Your task to perform on an android device: Go to privacy settings Image 0: 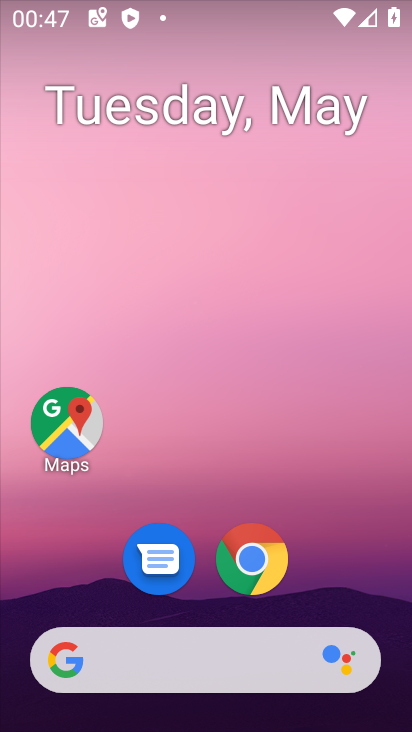
Step 0: drag from (326, 515) to (326, 236)
Your task to perform on an android device: Go to privacy settings Image 1: 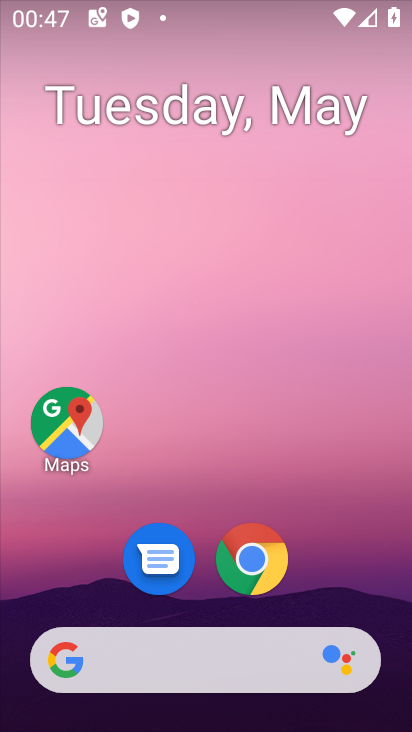
Step 1: drag from (357, 479) to (272, 174)
Your task to perform on an android device: Go to privacy settings Image 2: 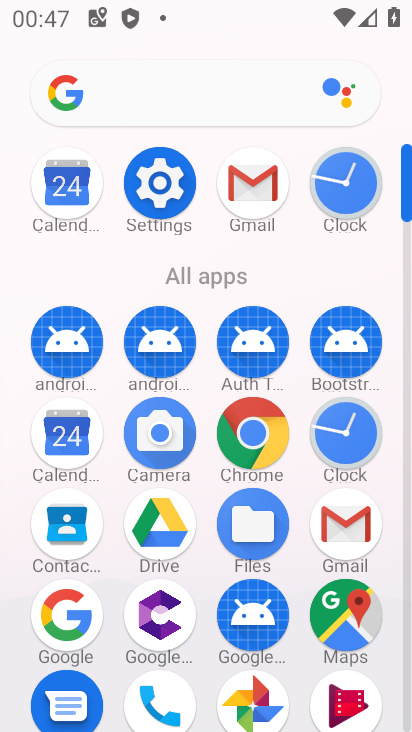
Step 2: click (127, 179)
Your task to perform on an android device: Go to privacy settings Image 3: 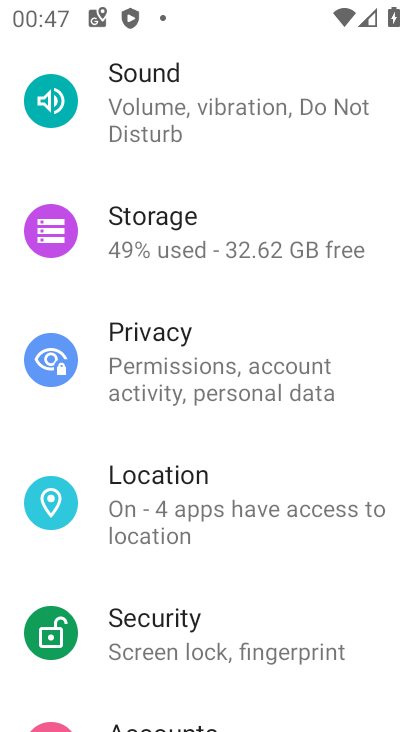
Step 3: drag from (174, 166) to (206, 458)
Your task to perform on an android device: Go to privacy settings Image 4: 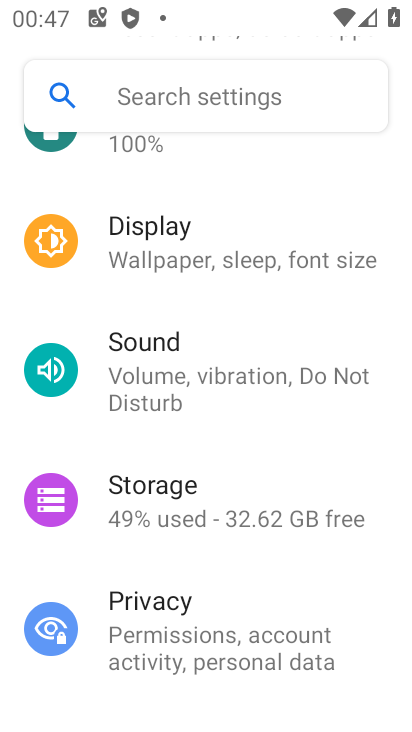
Step 4: drag from (218, 337) to (205, 562)
Your task to perform on an android device: Go to privacy settings Image 5: 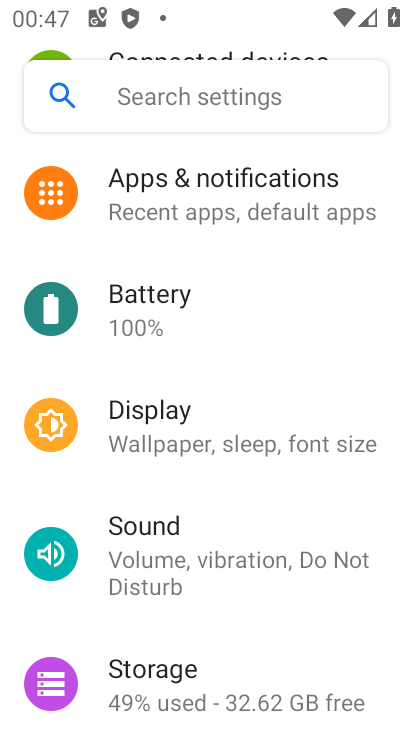
Step 5: drag from (223, 532) to (233, 317)
Your task to perform on an android device: Go to privacy settings Image 6: 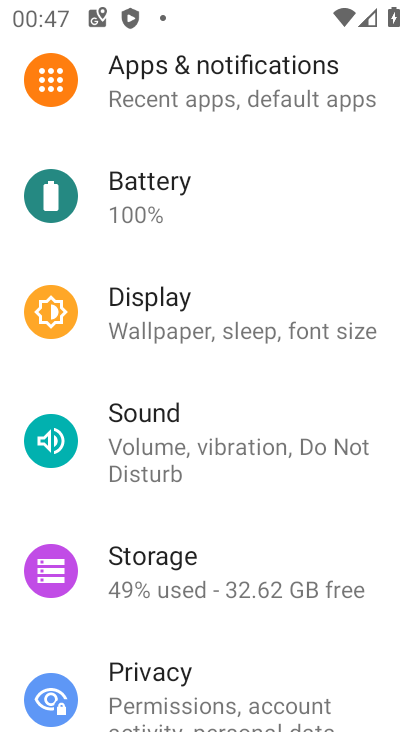
Step 6: drag from (202, 361) to (198, 158)
Your task to perform on an android device: Go to privacy settings Image 7: 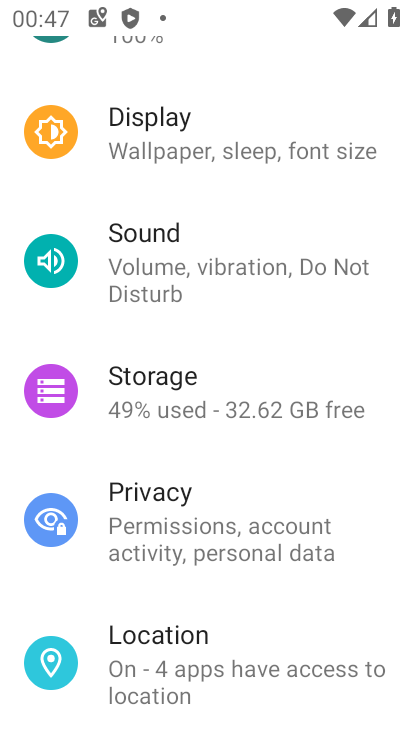
Step 7: drag from (141, 586) to (142, 522)
Your task to perform on an android device: Go to privacy settings Image 8: 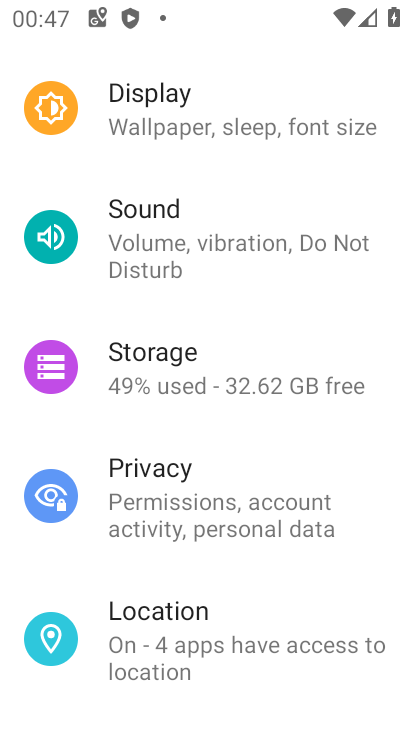
Step 8: click (147, 491)
Your task to perform on an android device: Go to privacy settings Image 9: 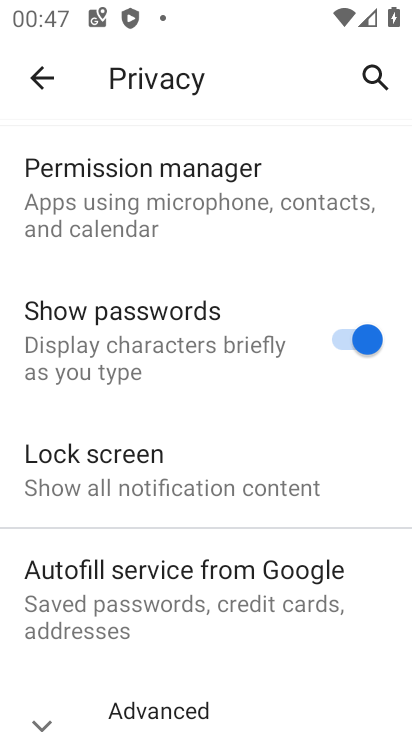
Step 9: task complete